Your task to perform on an android device: Go to accessibility settings Image 0: 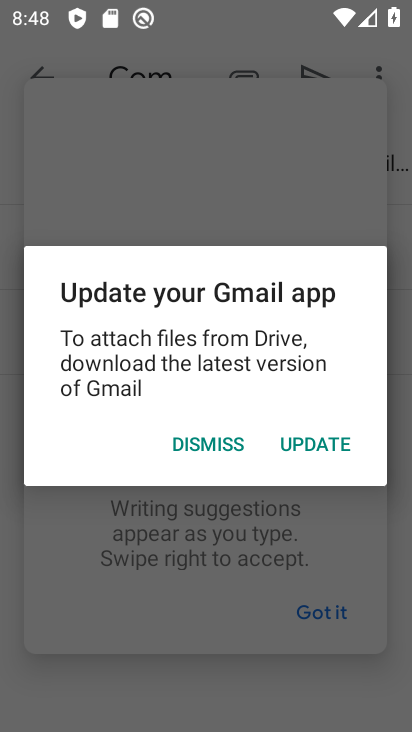
Step 0: press home button
Your task to perform on an android device: Go to accessibility settings Image 1: 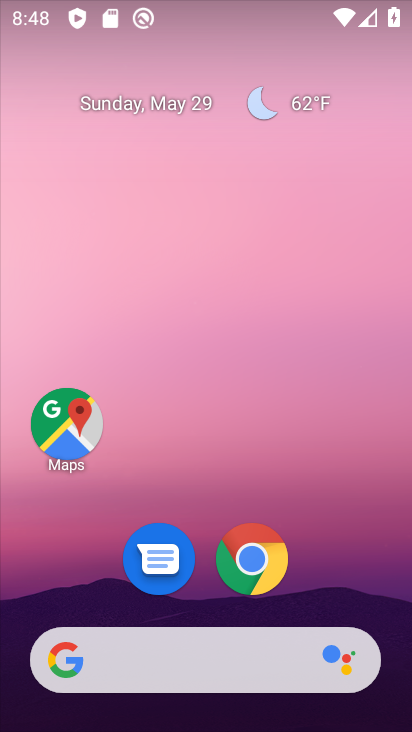
Step 1: drag from (293, 593) to (309, 311)
Your task to perform on an android device: Go to accessibility settings Image 2: 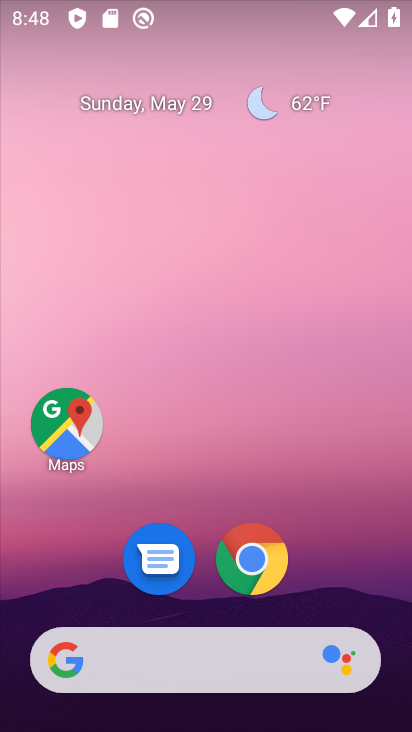
Step 2: drag from (247, 541) to (213, 199)
Your task to perform on an android device: Go to accessibility settings Image 3: 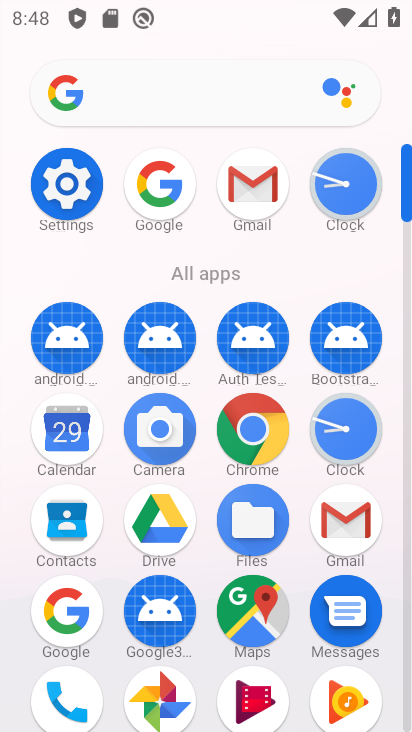
Step 3: click (63, 181)
Your task to perform on an android device: Go to accessibility settings Image 4: 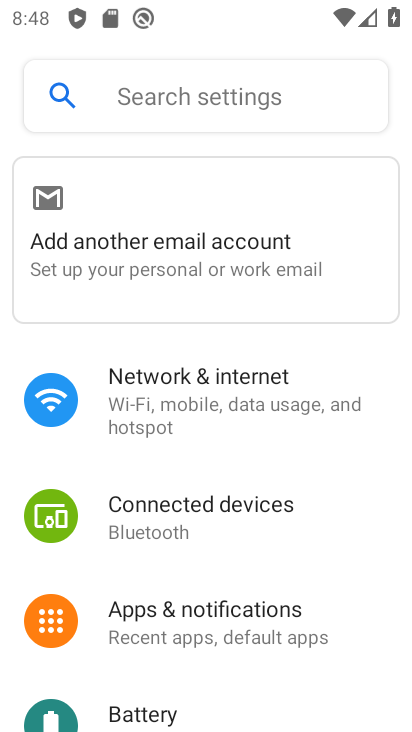
Step 4: drag from (216, 638) to (262, 322)
Your task to perform on an android device: Go to accessibility settings Image 5: 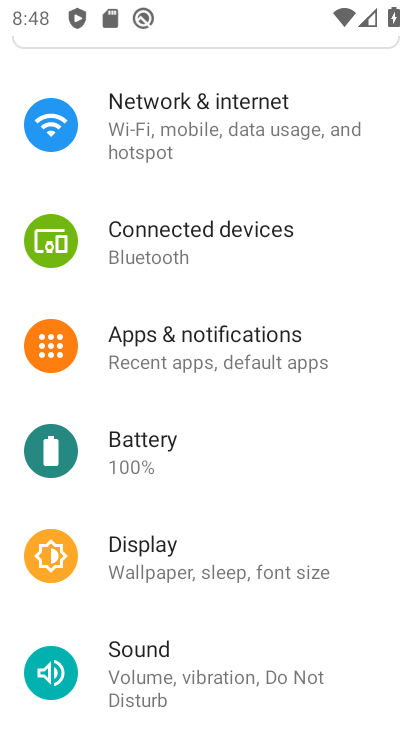
Step 5: drag from (285, 636) to (285, 298)
Your task to perform on an android device: Go to accessibility settings Image 6: 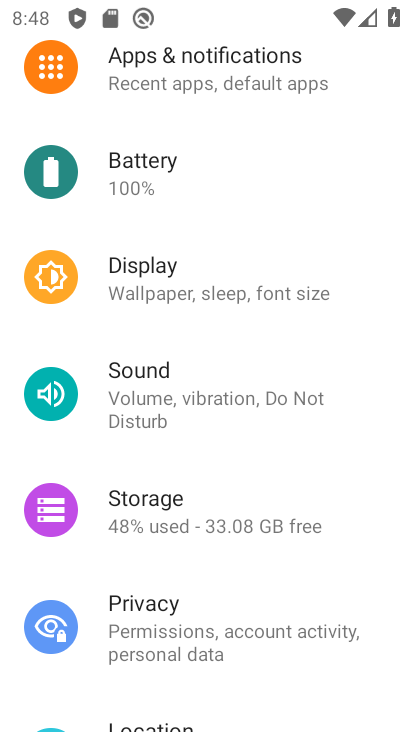
Step 6: drag from (241, 604) to (292, 191)
Your task to perform on an android device: Go to accessibility settings Image 7: 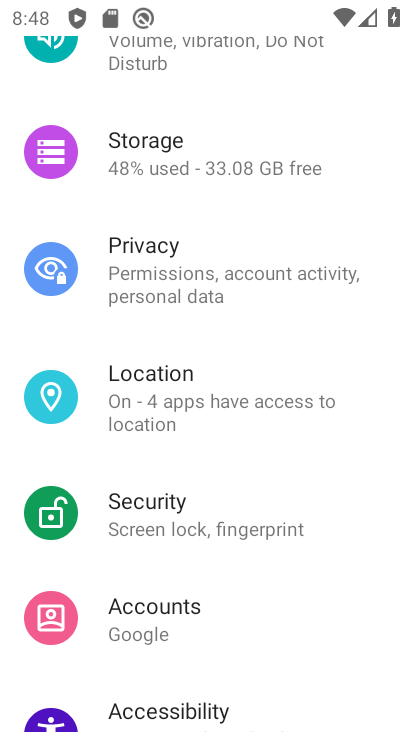
Step 7: drag from (239, 644) to (282, 351)
Your task to perform on an android device: Go to accessibility settings Image 8: 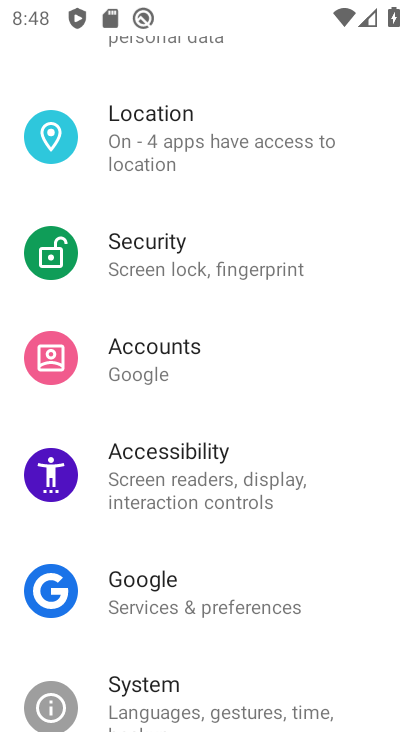
Step 8: click (182, 483)
Your task to perform on an android device: Go to accessibility settings Image 9: 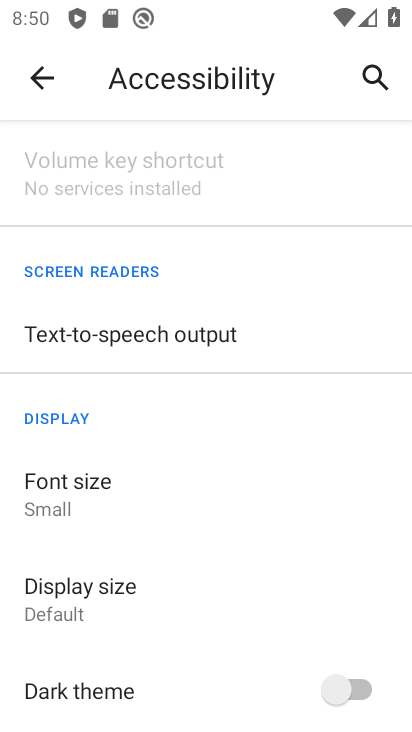
Step 9: task complete